Your task to perform on an android device: set the stopwatch Image 0: 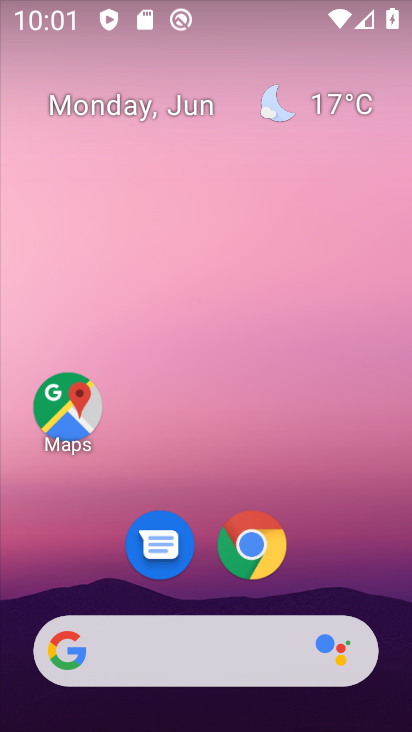
Step 0: drag from (224, 596) to (193, 150)
Your task to perform on an android device: set the stopwatch Image 1: 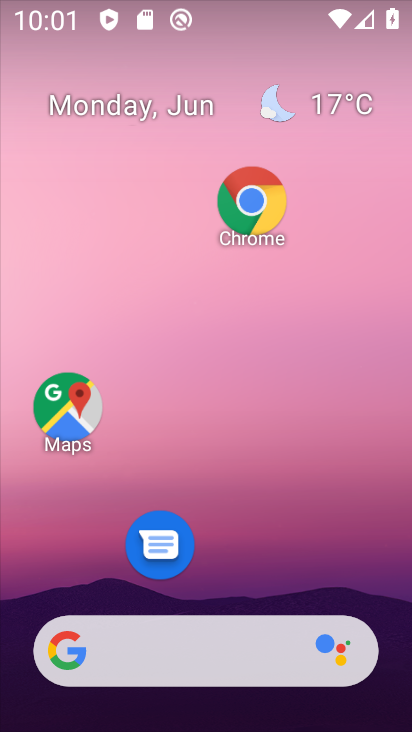
Step 1: drag from (253, 578) to (281, 30)
Your task to perform on an android device: set the stopwatch Image 2: 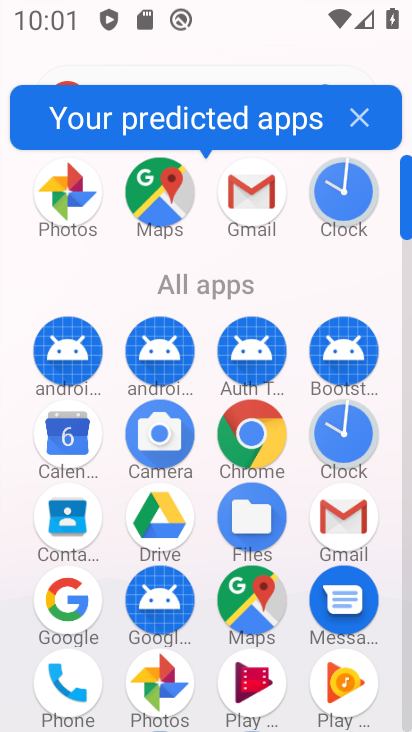
Step 2: click (336, 436)
Your task to perform on an android device: set the stopwatch Image 3: 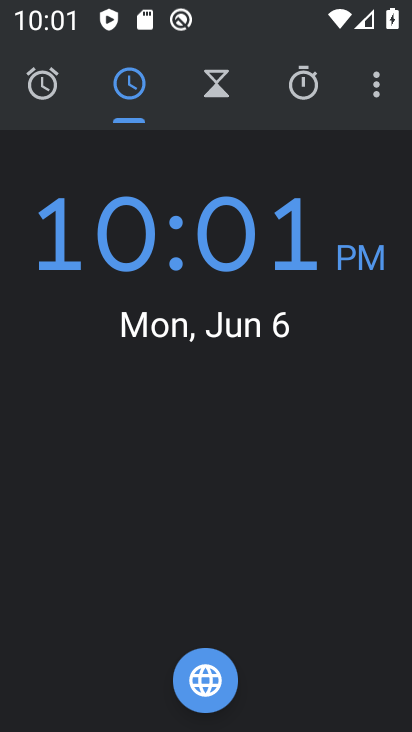
Step 3: click (220, 80)
Your task to perform on an android device: set the stopwatch Image 4: 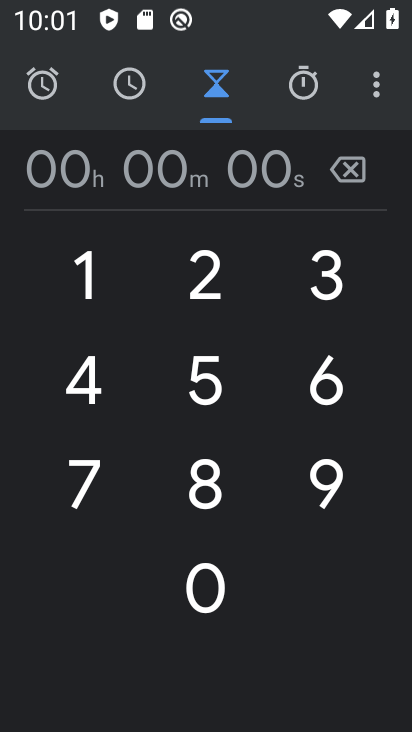
Step 4: click (291, 80)
Your task to perform on an android device: set the stopwatch Image 5: 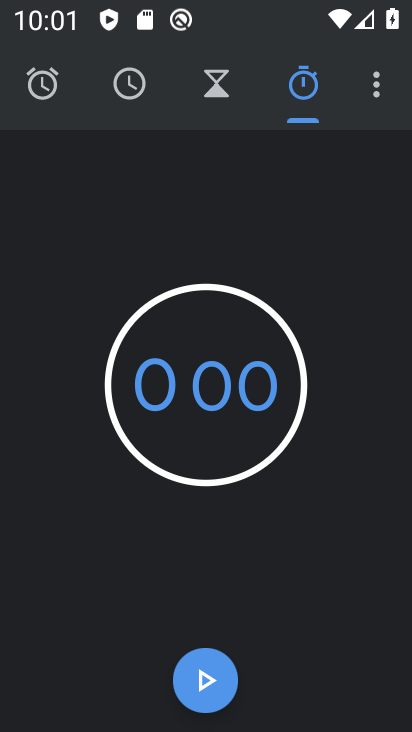
Step 5: click (220, 668)
Your task to perform on an android device: set the stopwatch Image 6: 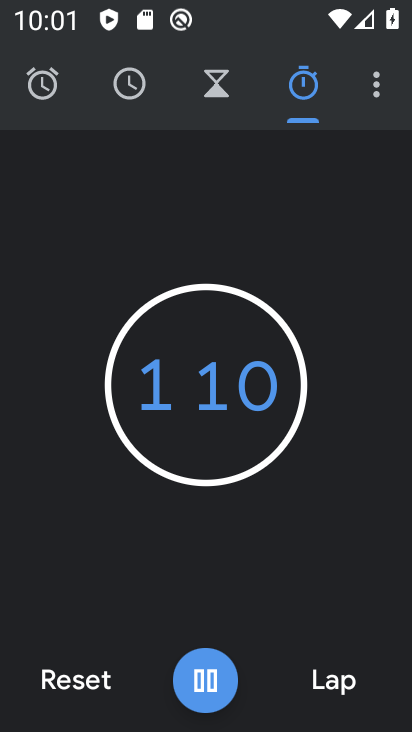
Step 6: task complete